Your task to perform on an android device: set the stopwatch Image 0: 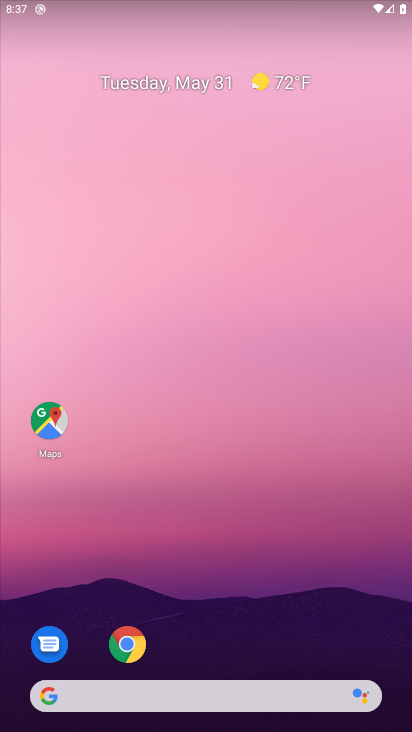
Step 0: press home button
Your task to perform on an android device: set the stopwatch Image 1: 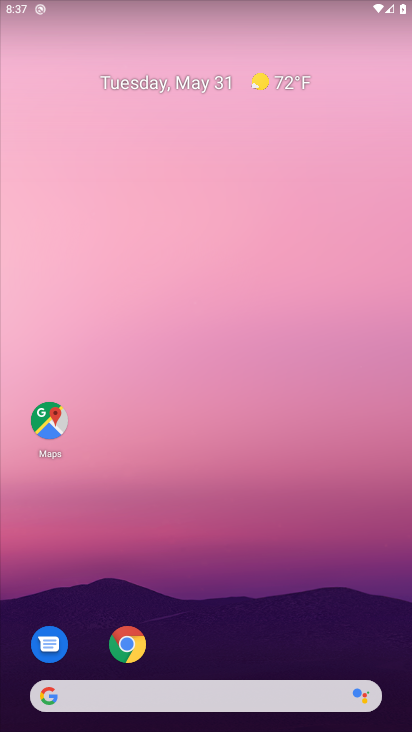
Step 1: drag from (211, 655) to (179, 32)
Your task to perform on an android device: set the stopwatch Image 2: 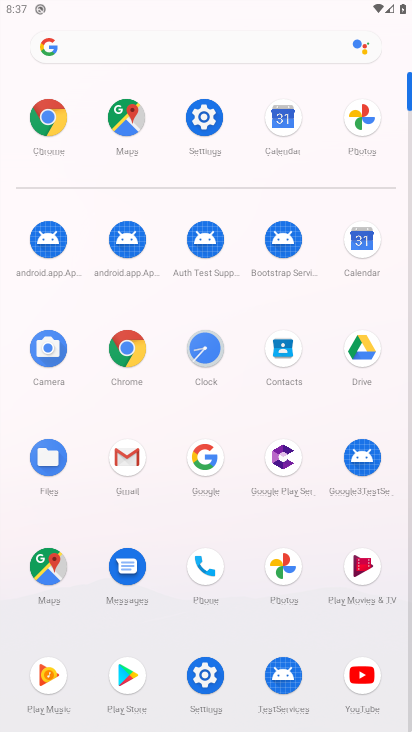
Step 2: click (205, 341)
Your task to perform on an android device: set the stopwatch Image 3: 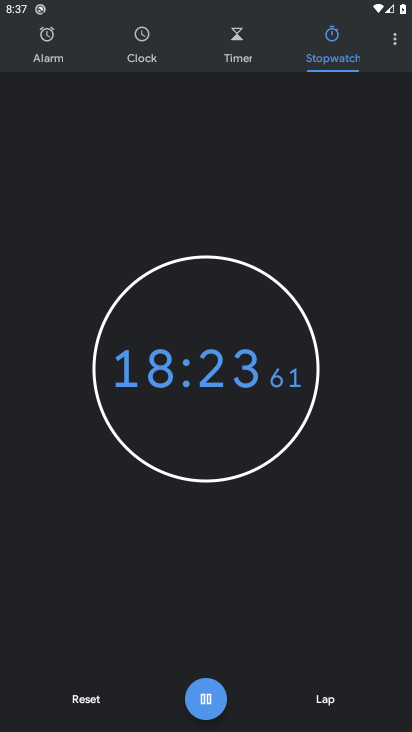
Step 3: task complete